Your task to perform on an android device: allow notifications from all sites in the chrome app Image 0: 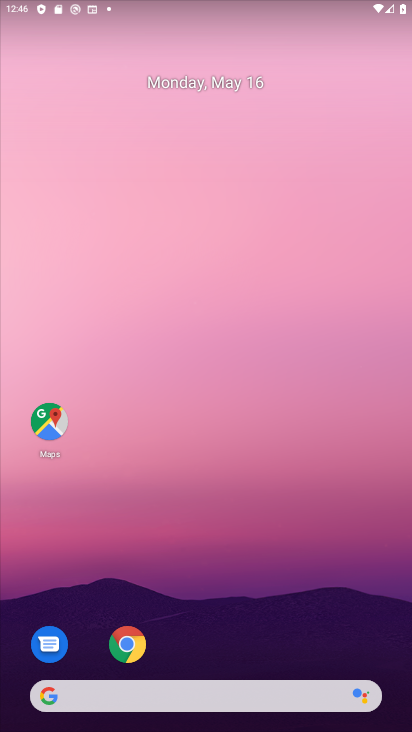
Step 0: click (116, 645)
Your task to perform on an android device: allow notifications from all sites in the chrome app Image 1: 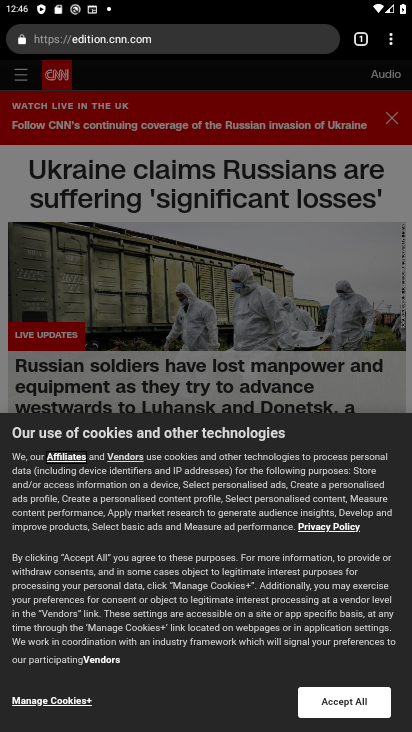
Step 1: drag from (391, 49) to (264, 430)
Your task to perform on an android device: allow notifications from all sites in the chrome app Image 2: 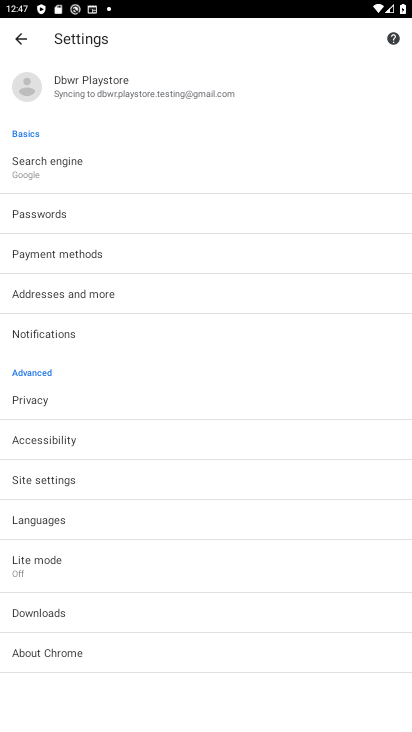
Step 2: click (85, 477)
Your task to perform on an android device: allow notifications from all sites in the chrome app Image 3: 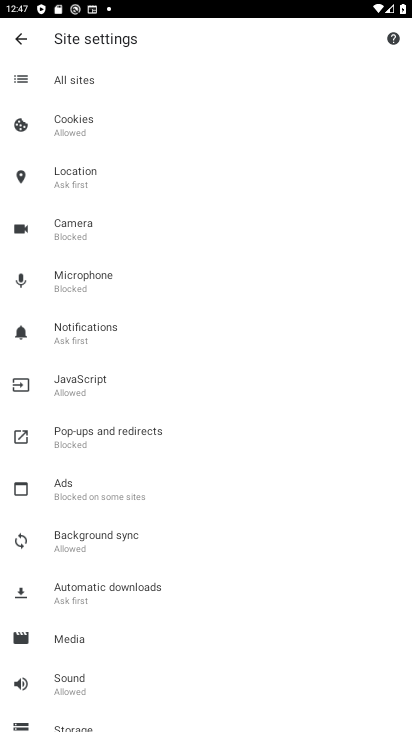
Step 3: click (130, 332)
Your task to perform on an android device: allow notifications from all sites in the chrome app Image 4: 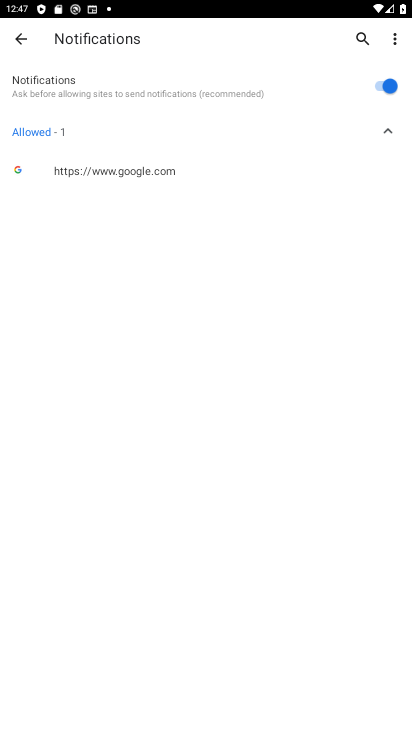
Step 4: task complete